Your task to perform on an android device: turn notification dots off Image 0: 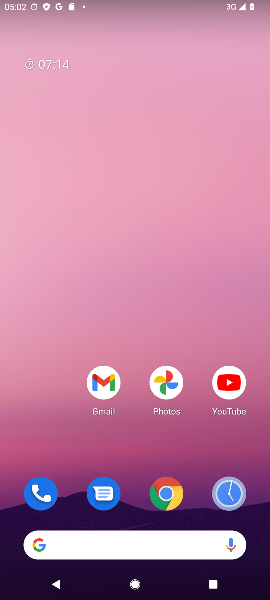
Step 0: press home button
Your task to perform on an android device: turn notification dots off Image 1: 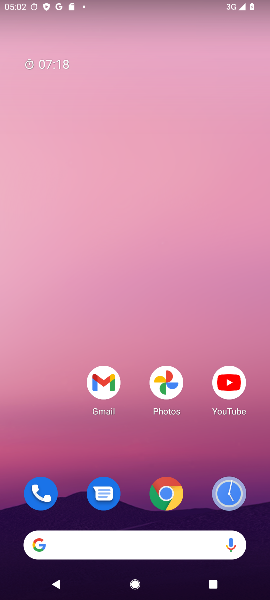
Step 1: drag from (52, 437) to (49, 164)
Your task to perform on an android device: turn notification dots off Image 2: 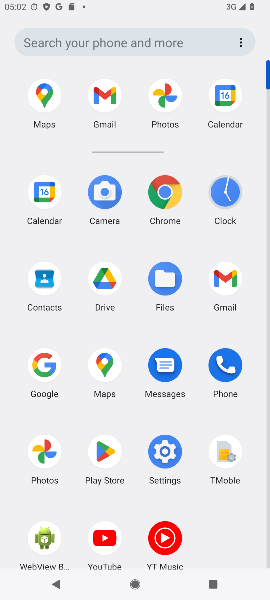
Step 2: click (162, 460)
Your task to perform on an android device: turn notification dots off Image 3: 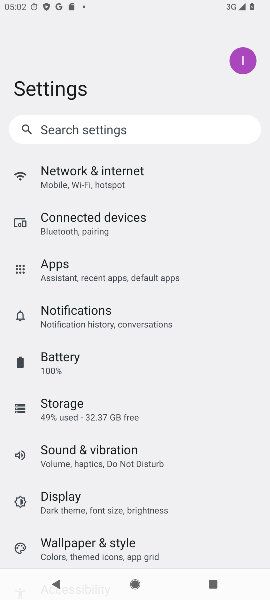
Step 3: drag from (221, 469) to (230, 338)
Your task to perform on an android device: turn notification dots off Image 4: 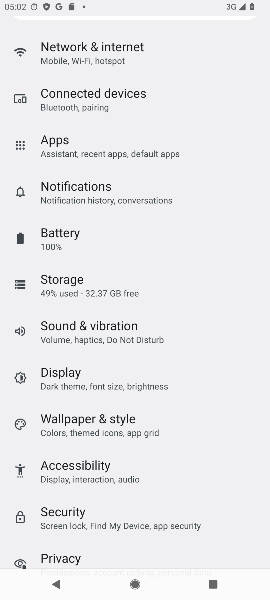
Step 4: drag from (220, 478) to (222, 371)
Your task to perform on an android device: turn notification dots off Image 5: 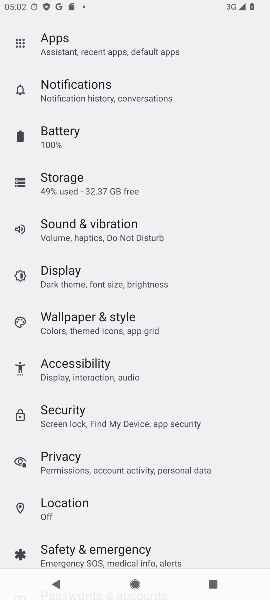
Step 5: drag from (222, 485) to (234, 373)
Your task to perform on an android device: turn notification dots off Image 6: 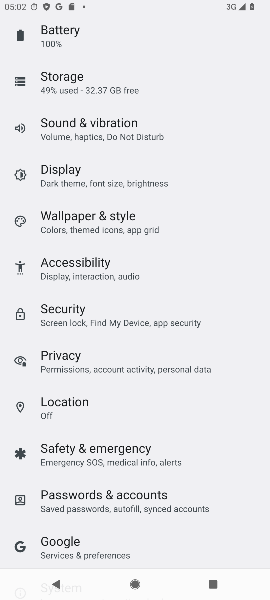
Step 6: drag from (230, 477) to (240, 348)
Your task to perform on an android device: turn notification dots off Image 7: 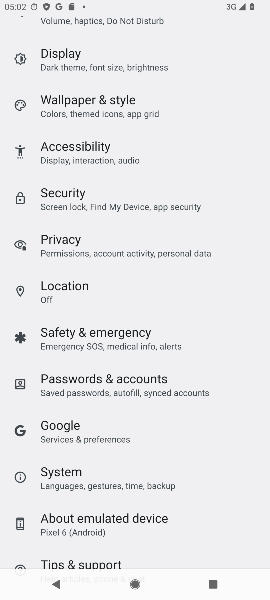
Step 7: drag from (225, 497) to (243, 383)
Your task to perform on an android device: turn notification dots off Image 8: 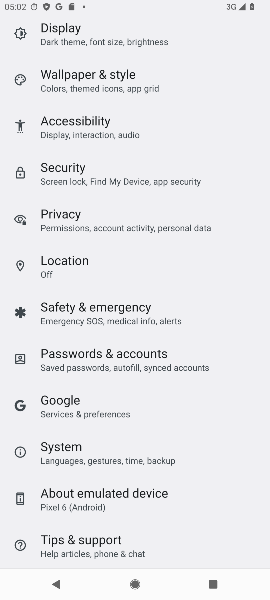
Step 8: drag from (236, 287) to (236, 418)
Your task to perform on an android device: turn notification dots off Image 9: 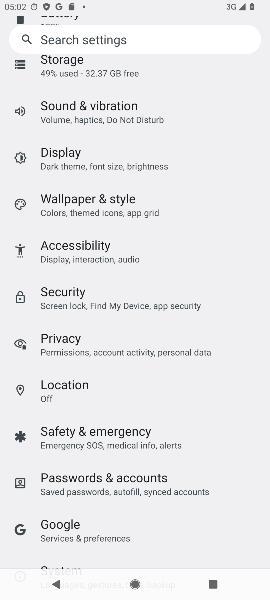
Step 9: drag from (239, 265) to (247, 387)
Your task to perform on an android device: turn notification dots off Image 10: 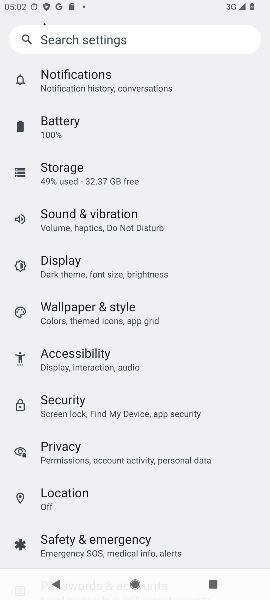
Step 10: drag from (237, 226) to (238, 354)
Your task to perform on an android device: turn notification dots off Image 11: 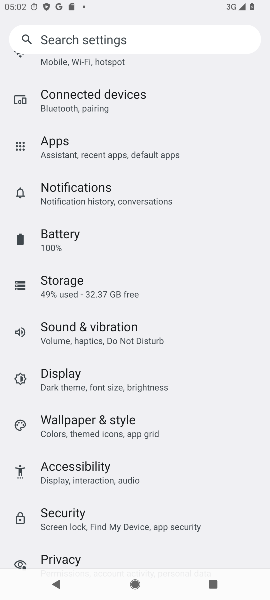
Step 11: drag from (231, 180) to (245, 364)
Your task to perform on an android device: turn notification dots off Image 12: 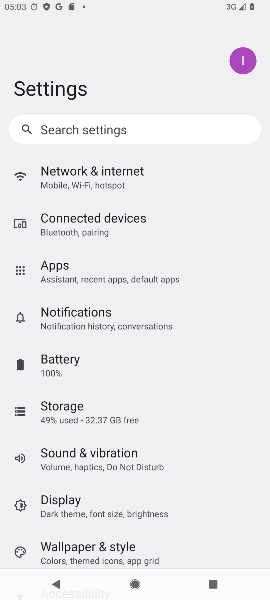
Step 12: click (160, 320)
Your task to perform on an android device: turn notification dots off Image 13: 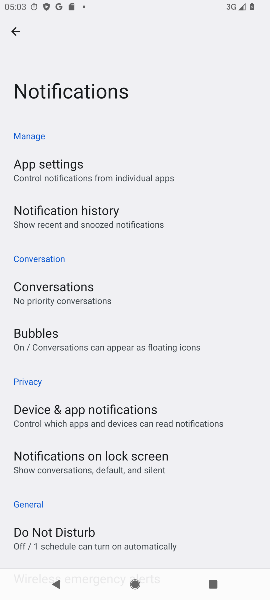
Step 13: task complete